Your task to perform on an android device: turn vacation reply on in the gmail app Image 0: 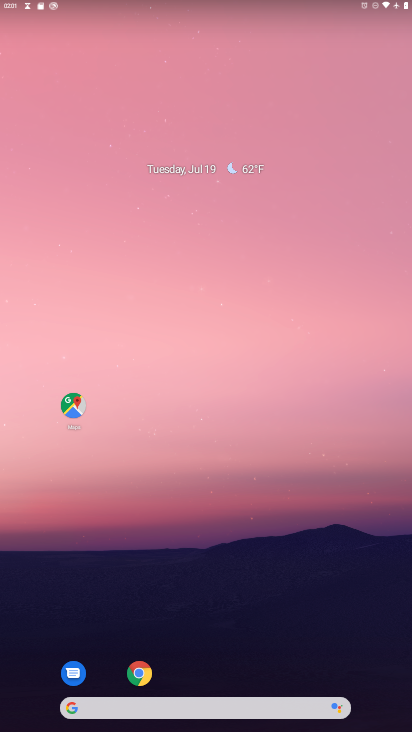
Step 0: drag from (233, 656) to (231, 283)
Your task to perform on an android device: turn vacation reply on in the gmail app Image 1: 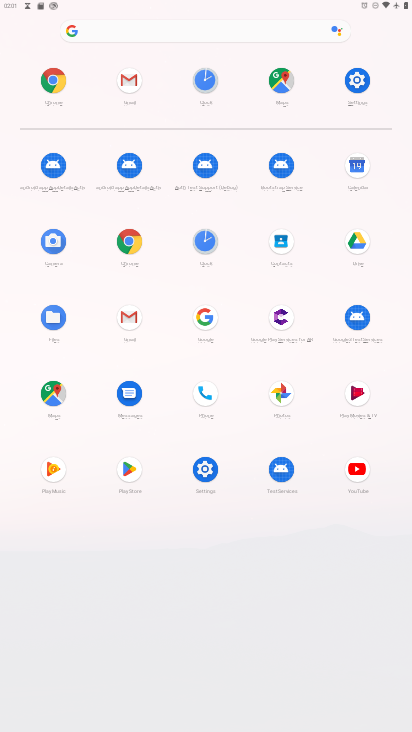
Step 1: click (126, 320)
Your task to perform on an android device: turn vacation reply on in the gmail app Image 2: 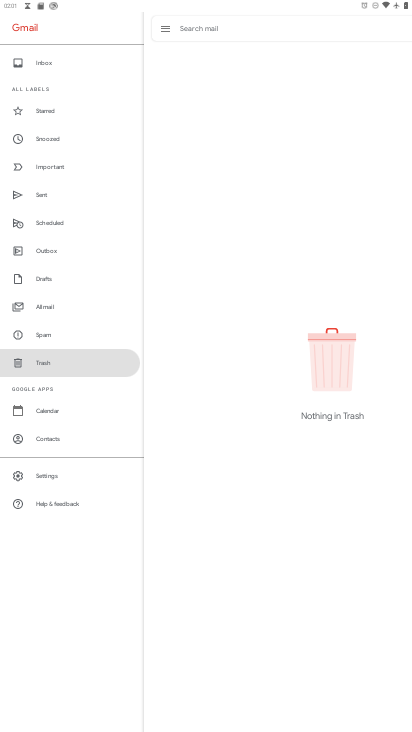
Step 2: click (50, 467)
Your task to perform on an android device: turn vacation reply on in the gmail app Image 3: 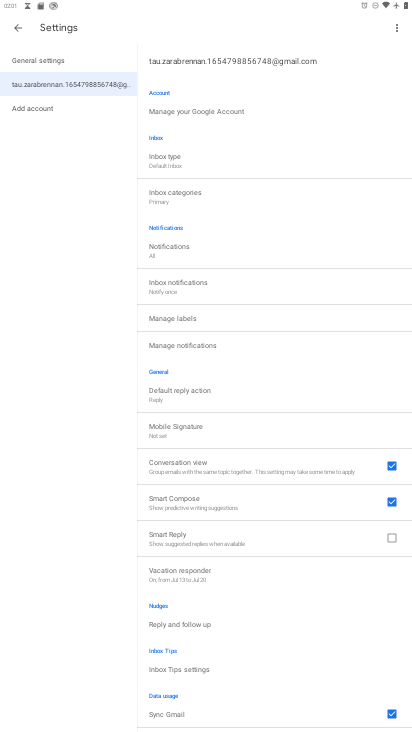
Step 3: click (211, 573)
Your task to perform on an android device: turn vacation reply on in the gmail app Image 4: 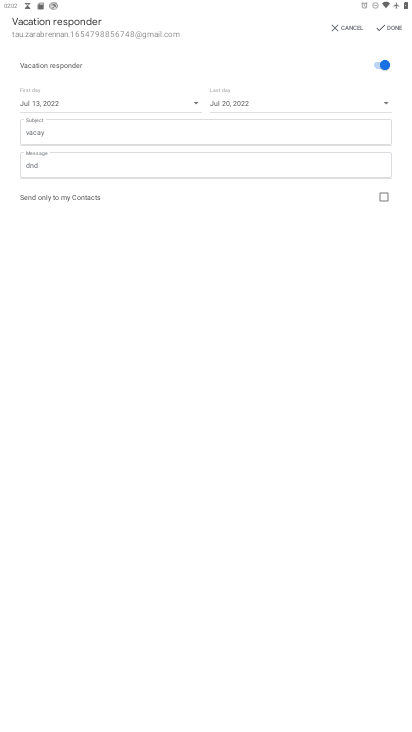
Step 4: task complete